Your task to perform on an android device: check out phone information Image 0: 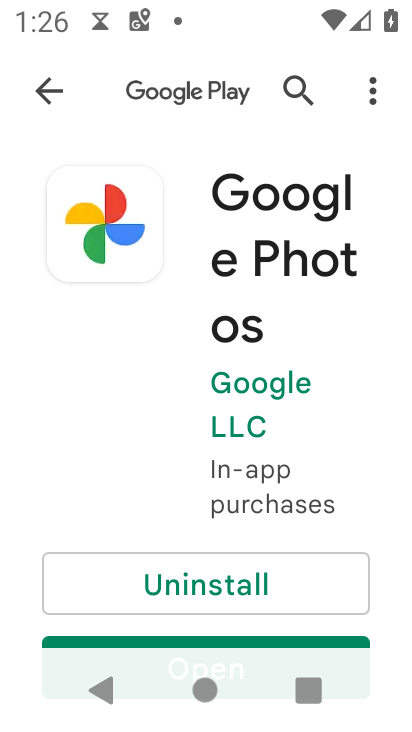
Step 0: press home button
Your task to perform on an android device: check out phone information Image 1: 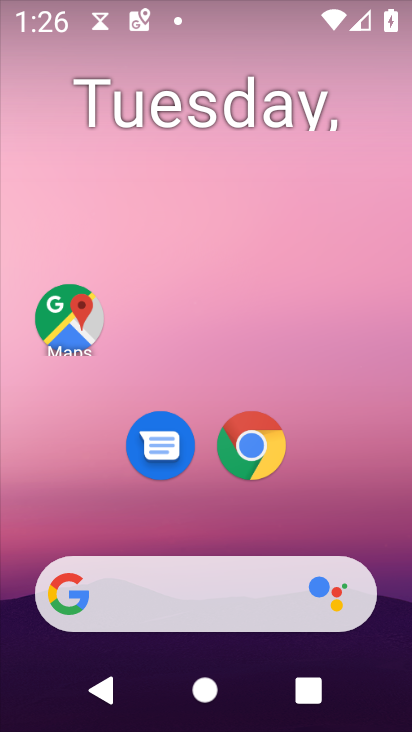
Step 1: drag from (295, 569) to (319, 11)
Your task to perform on an android device: check out phone information Image 2: 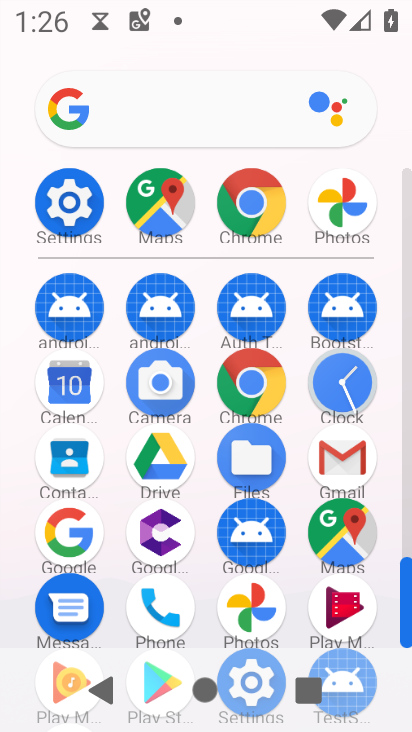
Step 2: drag from (296, 597) to (292, 141)
Your task to perform on an android device: check out phone information Image 3: 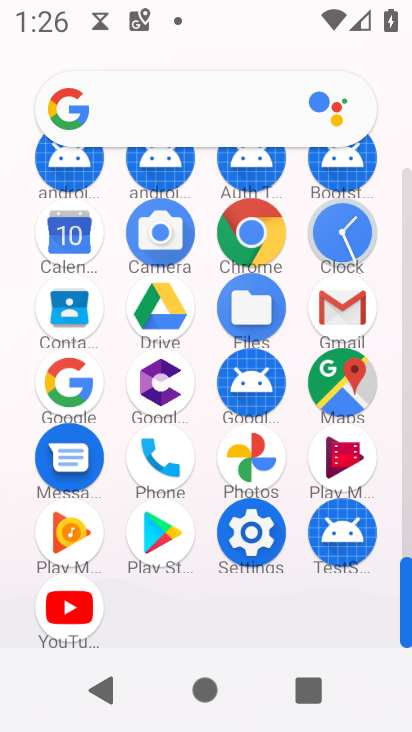
Step 3: click (254, 550)
Your task to perform on an android device: check out phone information Image 4: 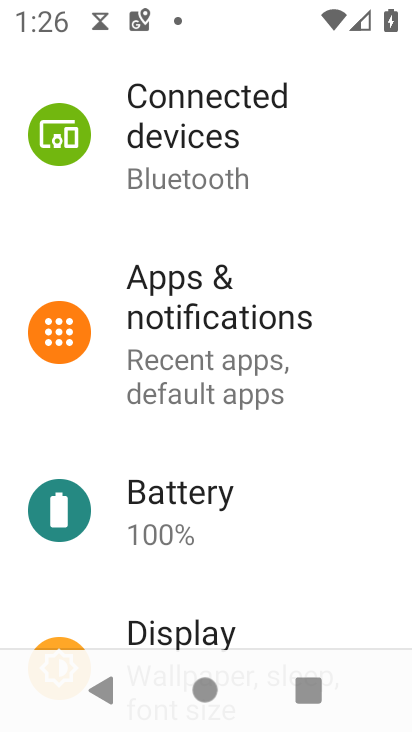
Step 4: drag from (283, 633) to (262, 86)
Your task to perform on an android device: check out phone information Image 5: 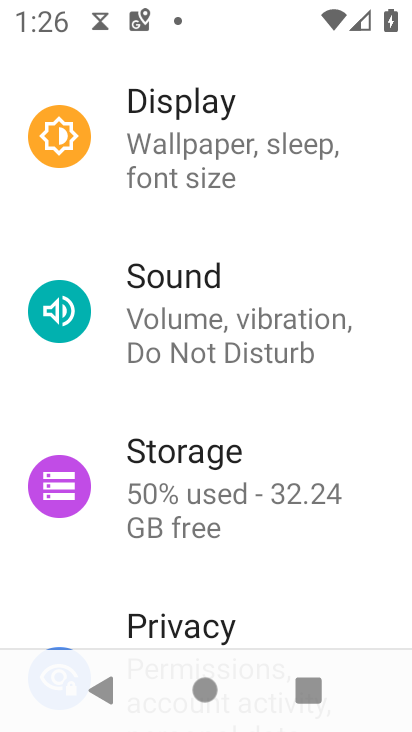
Step 5: drag from (289, 616) to (286, 122)
Your task to perform on an android device: check out phone information Image 6: 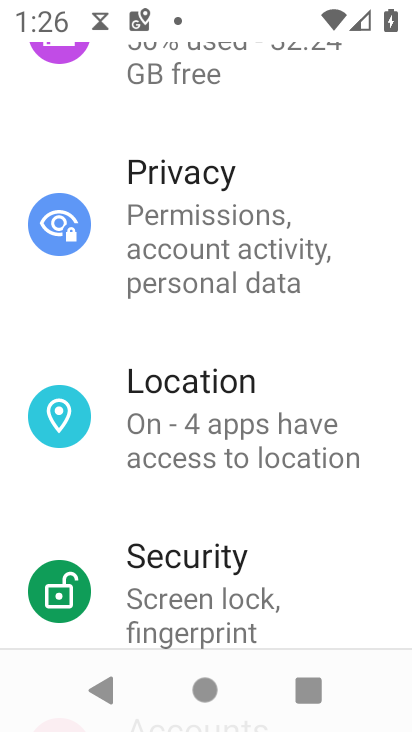
Step 6: drag from (253, 601) to (215, 102)
Your task to perform on an android device: check out phone information Image 7: 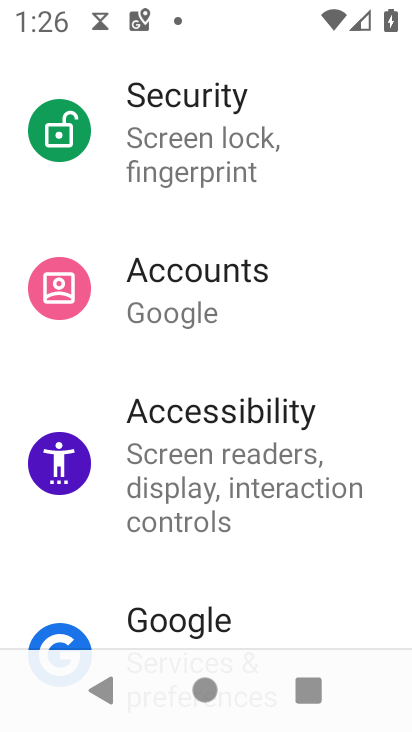
Step 7: drag from (289, 595) to (304, 110)
Your task to perform on an android device: check out phone information Image 8: 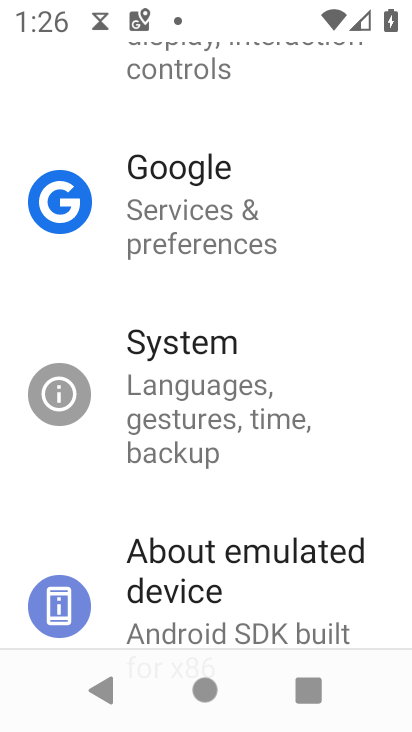
Step 8: drag from (287, 596) to (309, 168)
Your task to perform on an android device: check out phone information Image 9: 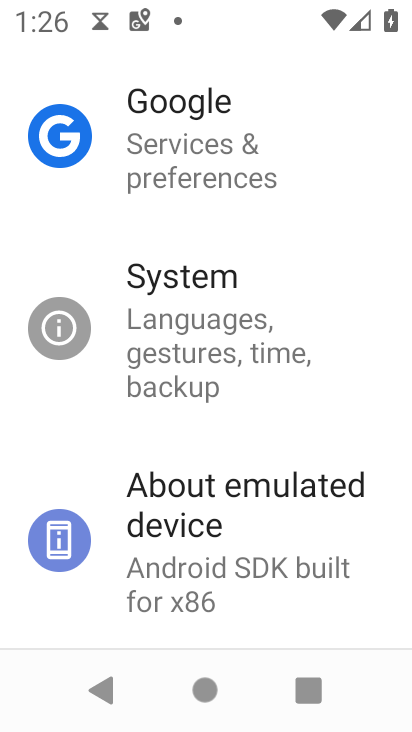
Step 9: click (267, 599)
Your task to perform on an android device: check out phone information Image 10: 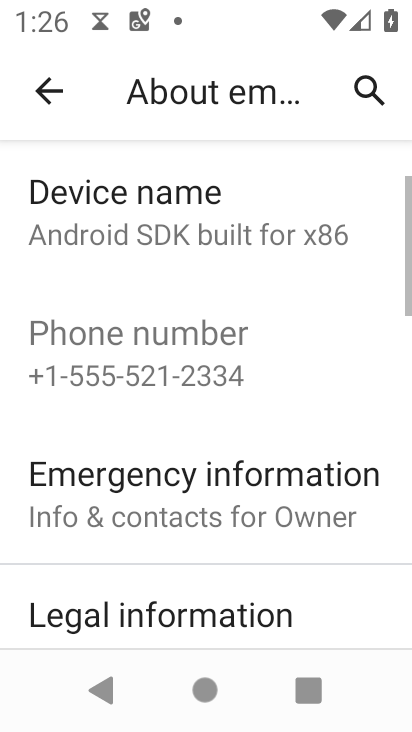
Step 10: task complete